Your task to perform on an android device: Open my contact list Image 0: 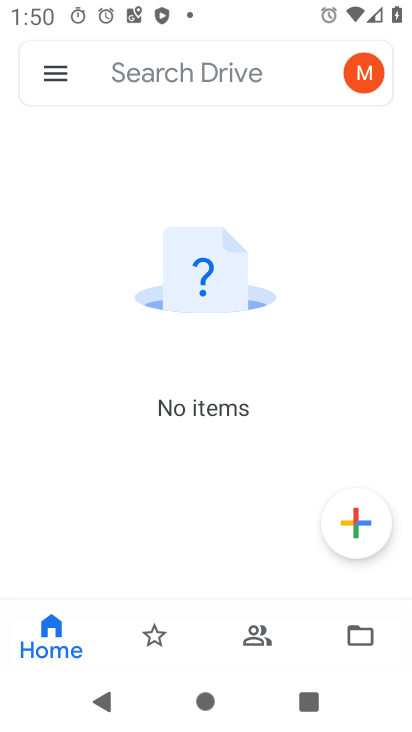
Step 0: press home button
Your task to perform on an android device: Open my contact list Image 1: 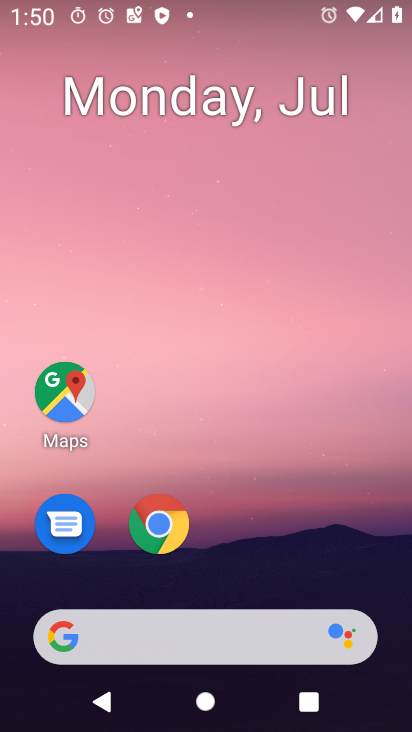
Step 1: drag from (322, 15) to (328, 50)
Your task to perform on an android device: Open my contact list Image 2: 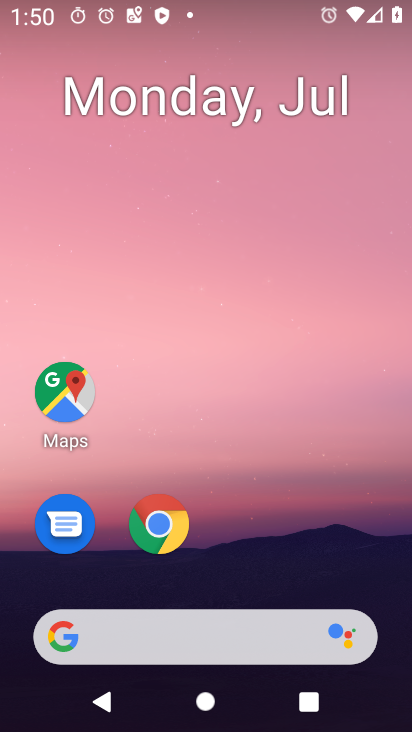
Step 2: drag from (328, 391) to (371, 1)
Your task to perform on an android device: Open my contact list Image 3: 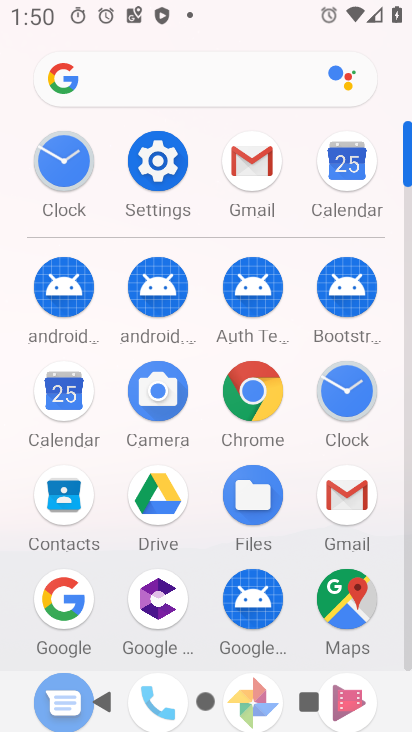
Step 3: click (84, 498)
Your task to perform on an android device: Open my contact list Image 4: 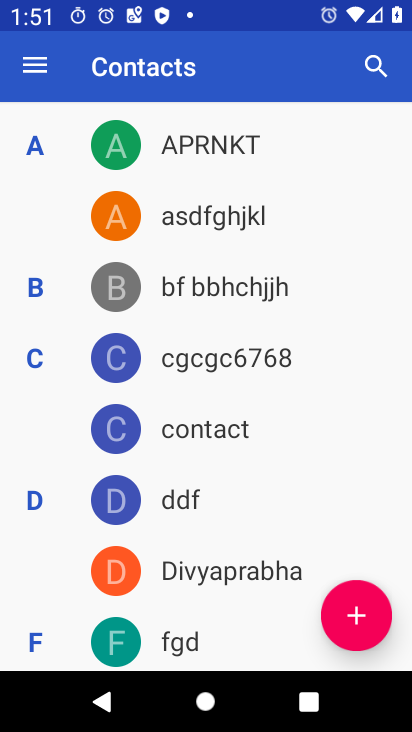
Step 4: task complete